Your task to perform on an android device: Open Maps and search for coffee Image 0: 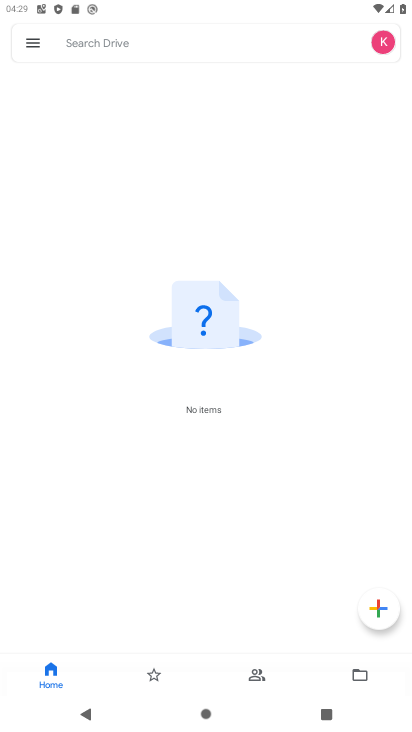
Step 0: press home button
Your task to perform on an android device: Open Maps and search for coffee Image 1: 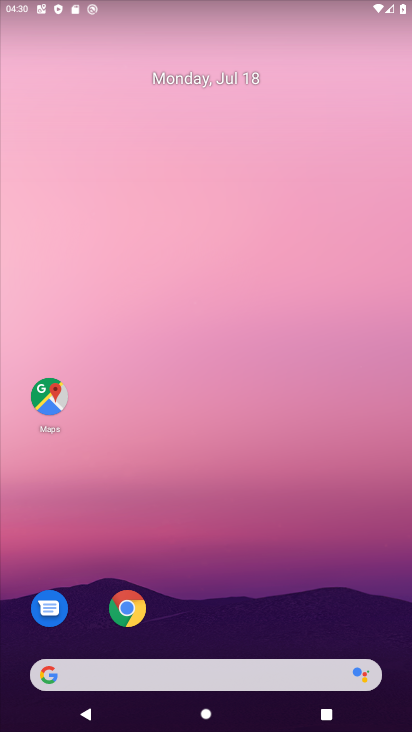
Step 1: click (43, 390)
Your task to perform on an android device: Open Maps and search for coffee Image 2: 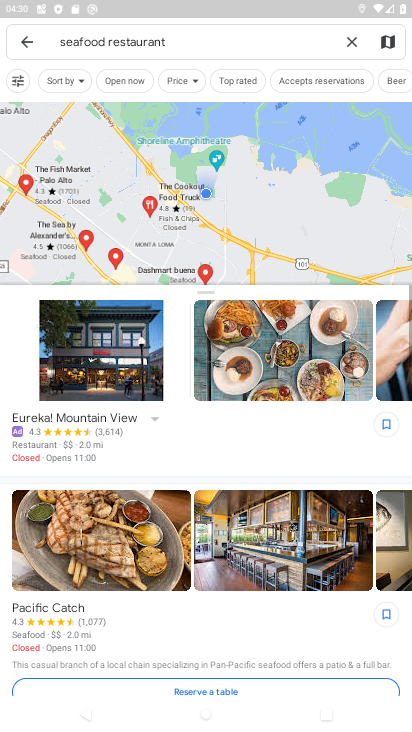
Step 2: click (352, 40)
Your task to perform on an android device: Open Maps and search for coffee Image 3: 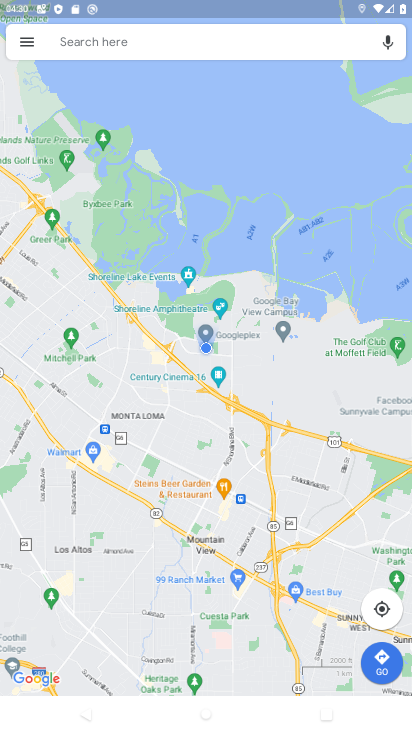
Step 3: click (223, 31)
Your task to perform on an android device: Open Maps and search for coffee Image 4: 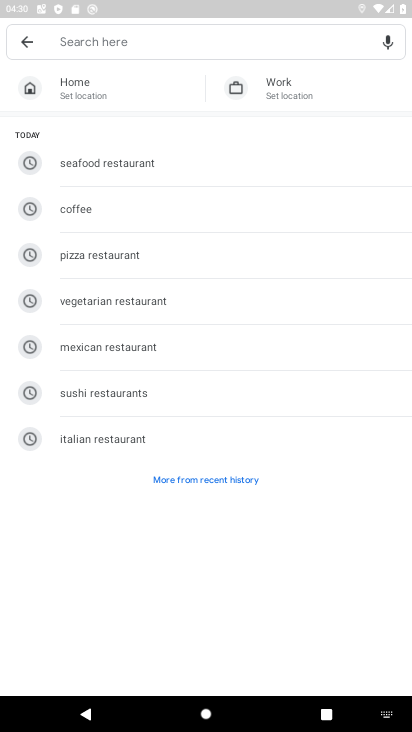
Step 4: click (65, 209)
Your task to perform on an android device: Open Maps and search for coffee Image 5: 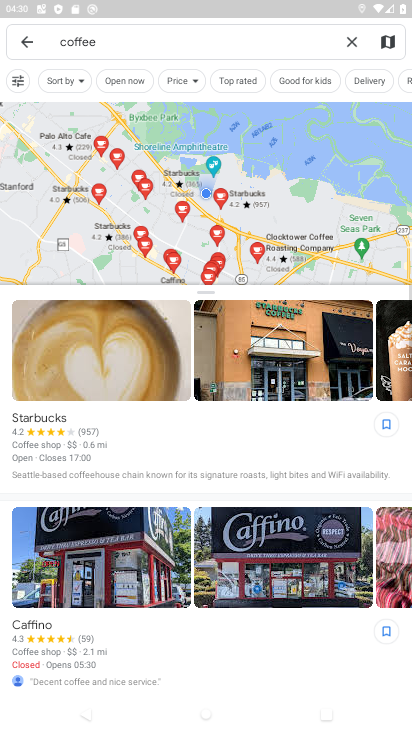
Step 5: task complete